Your task to perform on an android device: Search for Mexican restaurants on Maps Image 0: 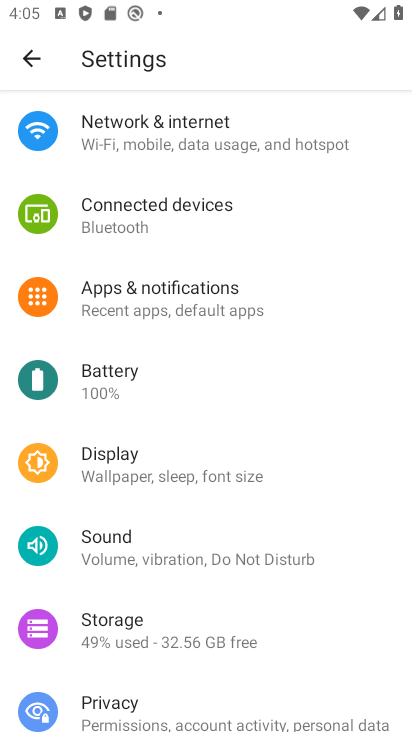
Step 0: press home button
Your task to perform on an android device: Search for Mexican restaurants on Maps Image 1: 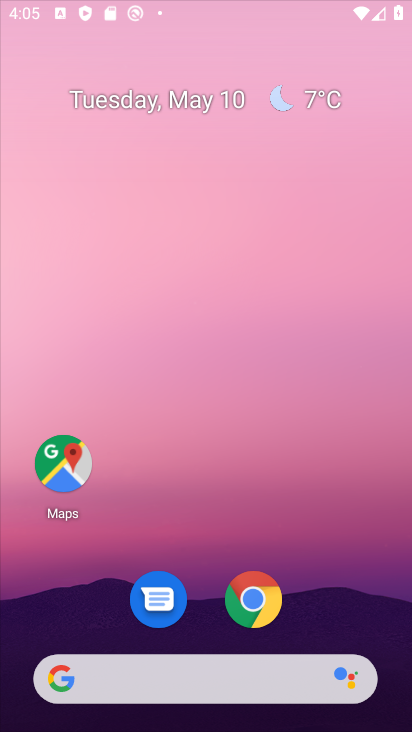
Step 1: drag from (220, 647) to (226, 165)
Your task to perform on an android device: Search for Mexican restaurants on Maps Image 2: 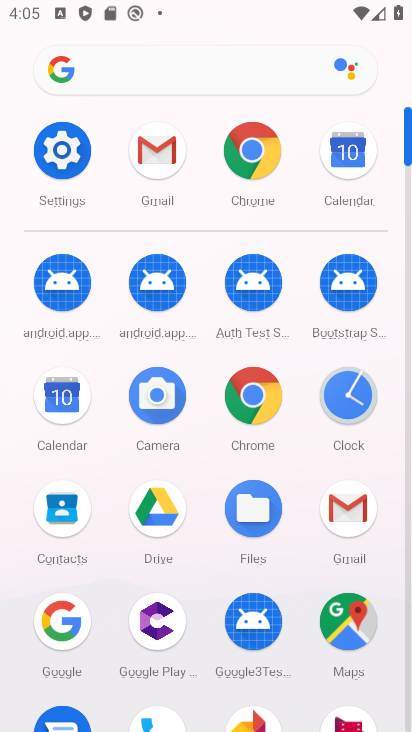
Step 2: click (352, 644)
Your task to perform on an android device: Search for Mexican restaurants on Maps Image 3: 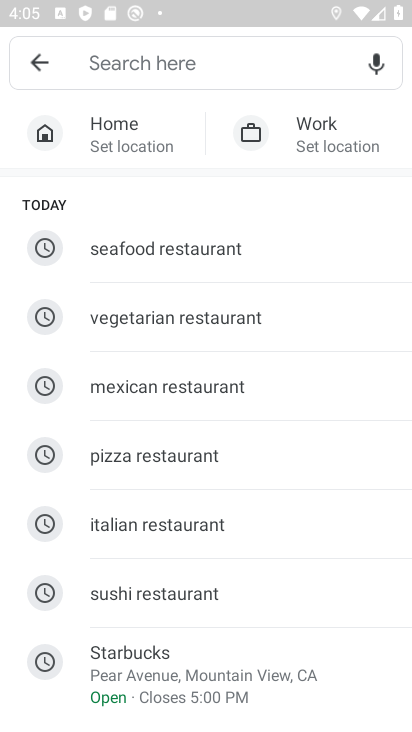
Step 3: click (150, 380)
Your task to perform on an android device: Search for Mexican restaurants on Maps Image 4: 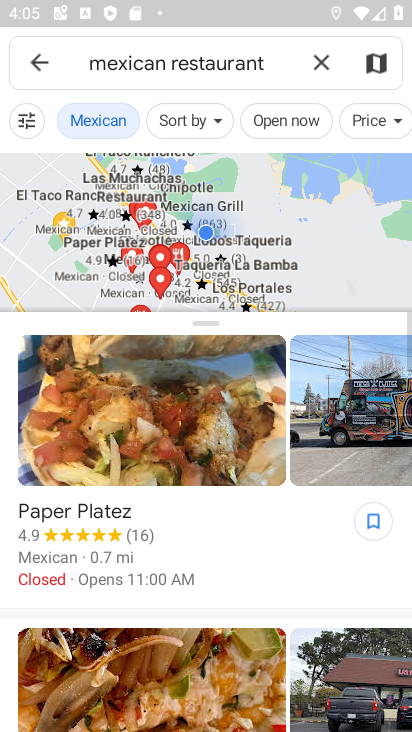
Step 4: task complete